Your task to perform on an android device: add a label to a message in the gmail app Image 0: 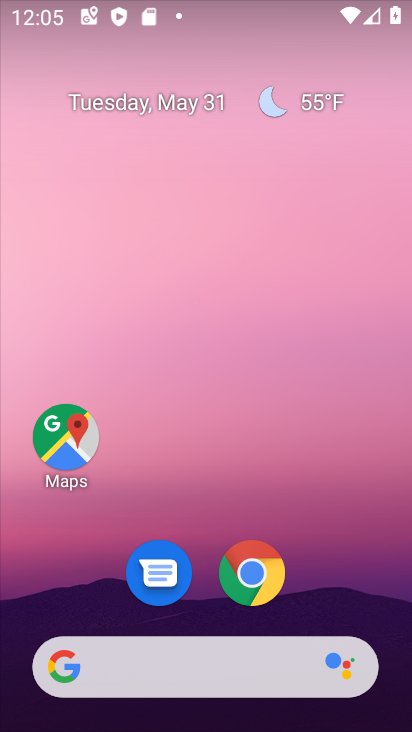
Step 0: drag from (310, 615) to (387, 42)
Your task to perform on an android device: add a label to a message in the gmail app Image 1: 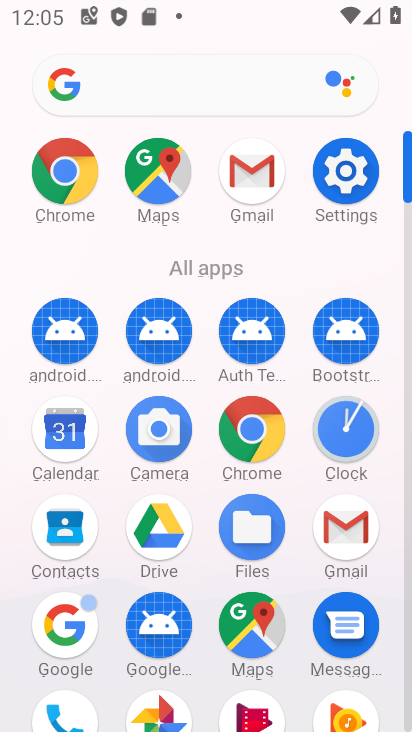
Step 1: click (253, 197)
Your task to perform on an android device: add a label to a message in the gmail app Image 2: 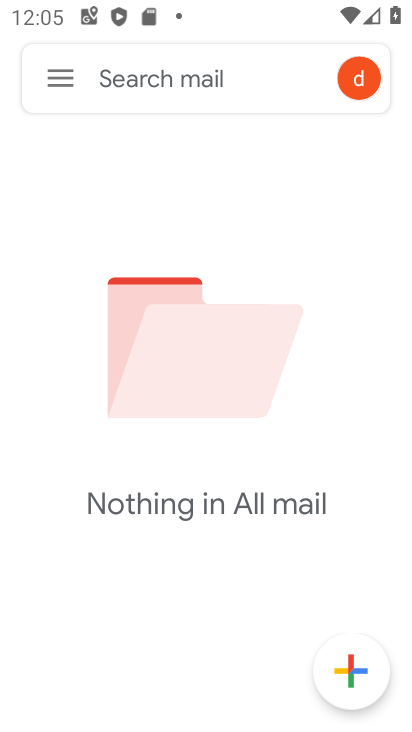
Step 2: click (63, 73)
Your task to perform on an android device: add a label to a message in the gmail app Image 3: 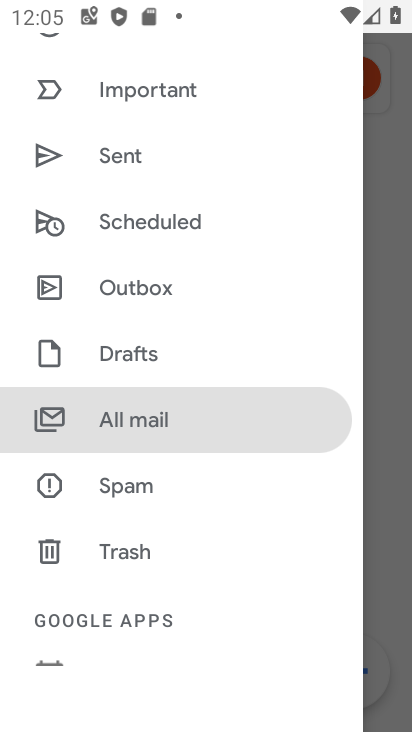
Step 3: drag from (203, 635) to (266, 259)
Your task to perform on an android device: add a label to a message in the gmail app Image 4: 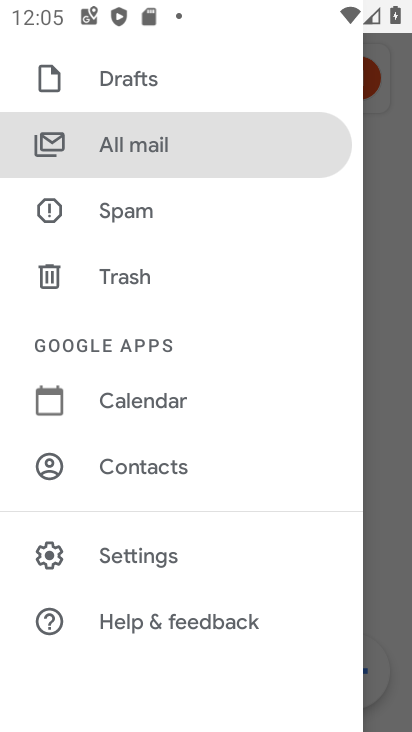
Step 4: click (146, 147)
Your task to perform on an android device: add a label to a message in the gmail app Image 5: 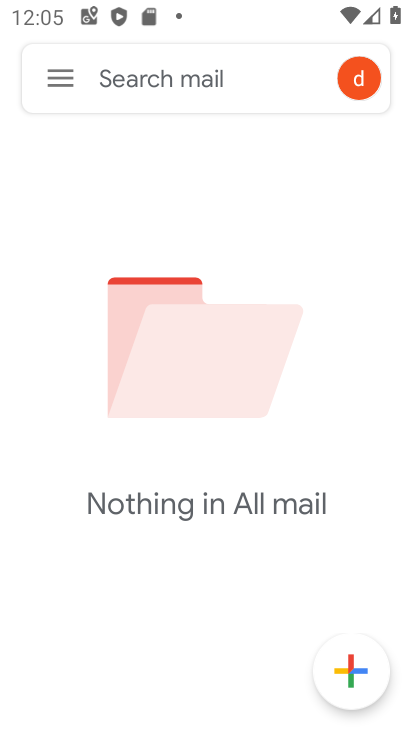
Step 5: task complete